Your task to perform on an android device: Search for vegetarian restaurants on Maps Image 0: 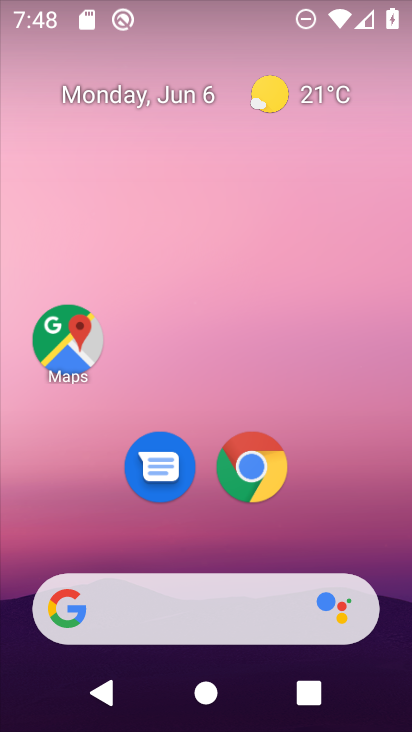
Step 0: drag from (332, 531) to (352, 115)
Your task to perform on an android device: Search for vegetarian restaurants on Maps Image 1: 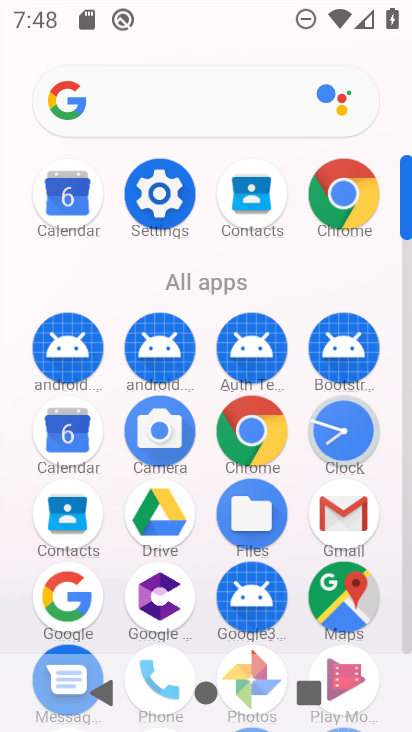
Step 1: click (358, 595)
Your task to perform on an android device: Search for vegetarian restaurants on Maps Image 2: 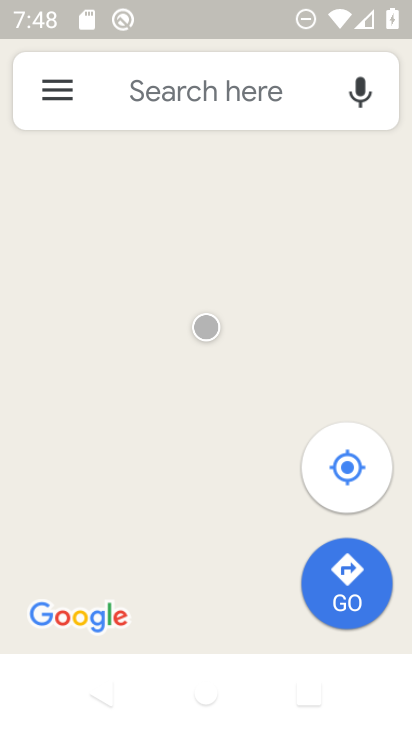
Step 2: click (241, 95)
Your task to perform on an android device: Search for vegetarian restaurants on Maps Image 3: 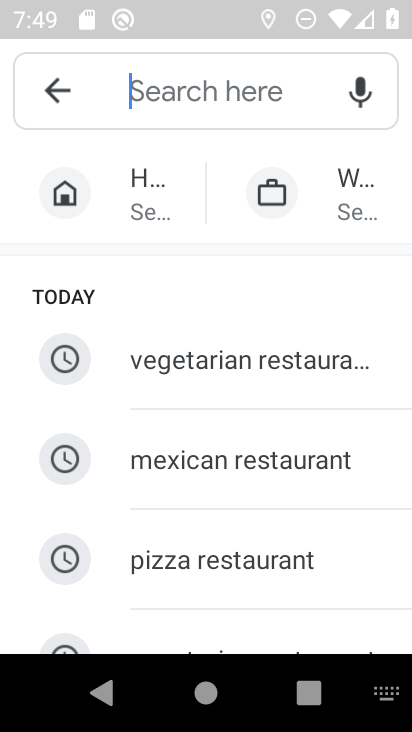
Step 3: type "vegetrain restaurants"
Your task to perform on an android device: Search for vegetarian restaurants on Maps Image 4: 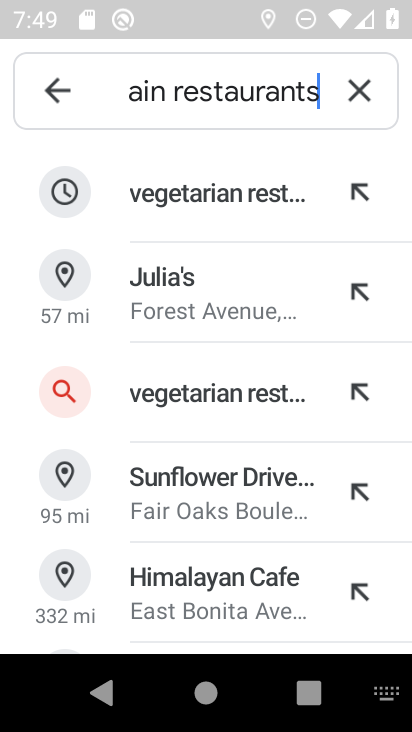
Step 4: click (202, 207)
Your task to perform on an android device: Search for vegetarian restaurants on Maps Image 5: 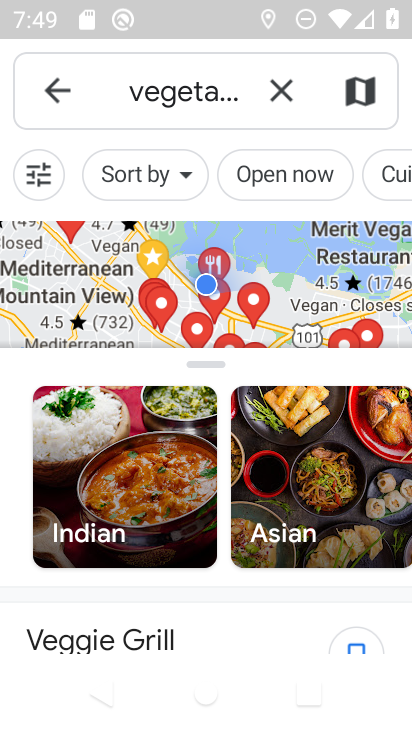
Step 5: task complete